Your task to perform on an android device: install app "Google Duo" Image 0: 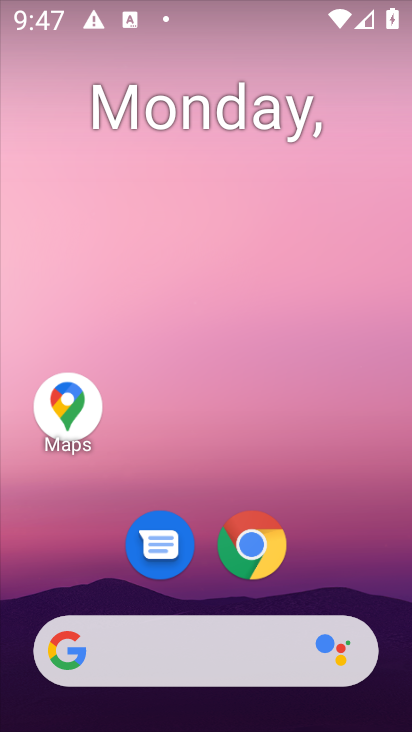
Step 0: press home button
Your task to perform on an android device: install app "Google Duo" Image 1: 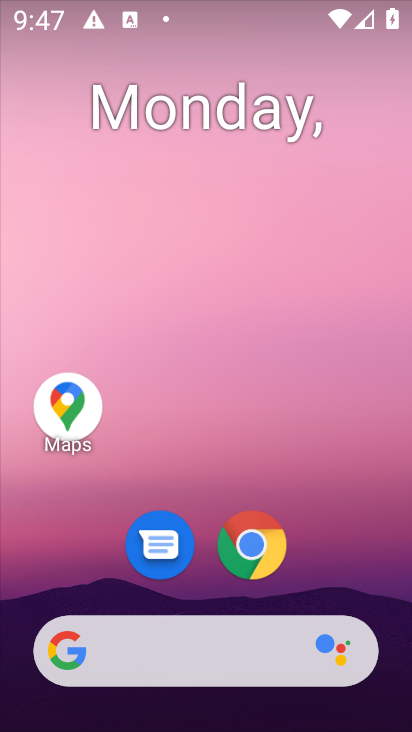
Step 1: drag from (375, 601) to (343, 73)
Your task to perform on an android device: install app "Google Duo" Image 2: 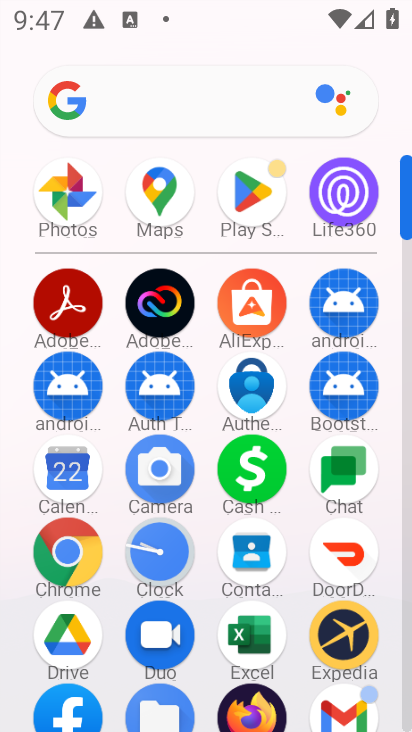
Step 2: click (262, 198)
Your task to perform on an android device: install app "Google Duo" Image 3: 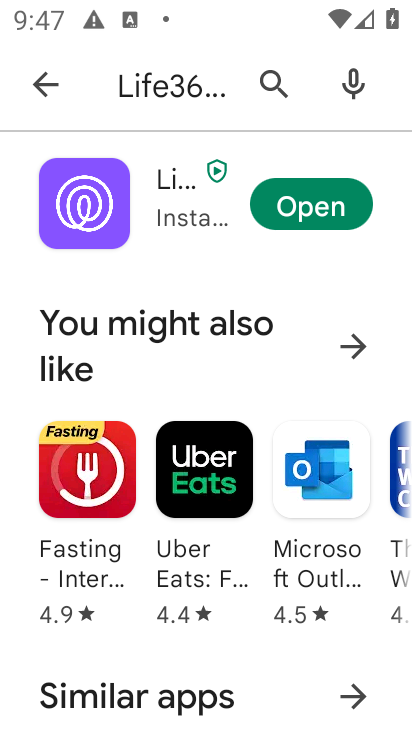
Step 3: press back button
Your task to perform on an android device: install app "Google Duo" Image 4: 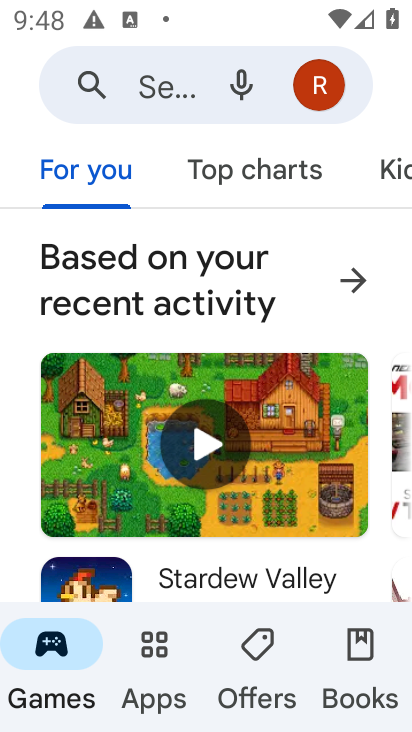
Step 4: click (149, 89)
Your task to perform on an android device: install app "Google Duo" Image 5: 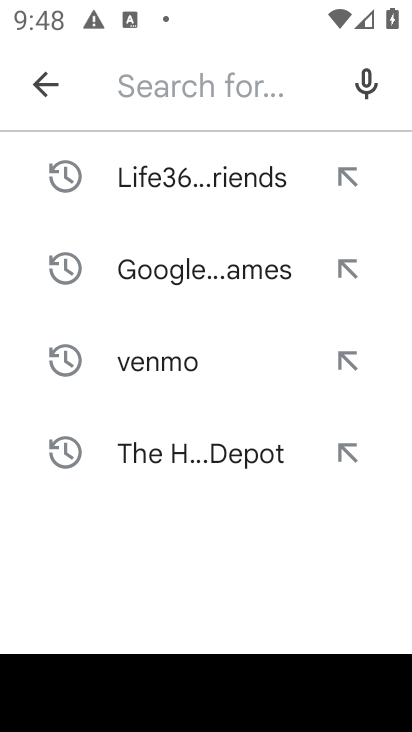
Step 5: type "google duo"
Your task to perform on an android device: install app "Google Duo" Image 6: 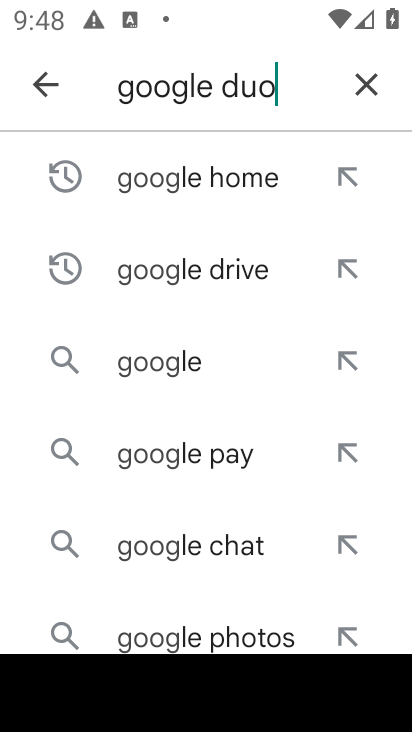
Step 6: press enter
Your task to perform on an android device: install app "Google Duo" Image 7: 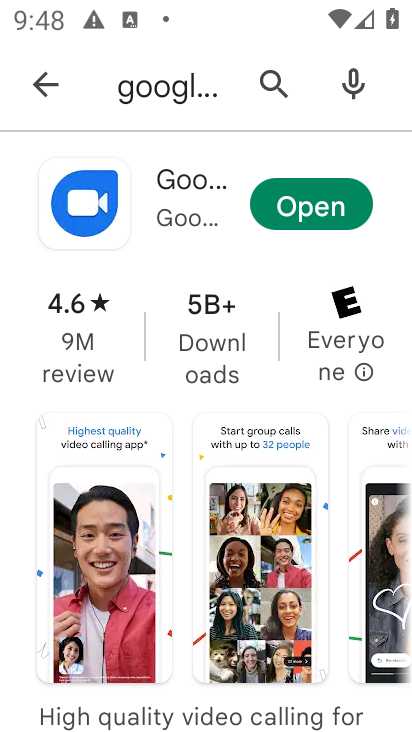
Step 7: task complete